Your task to perform on an android device: What is the recent news? Image 0: 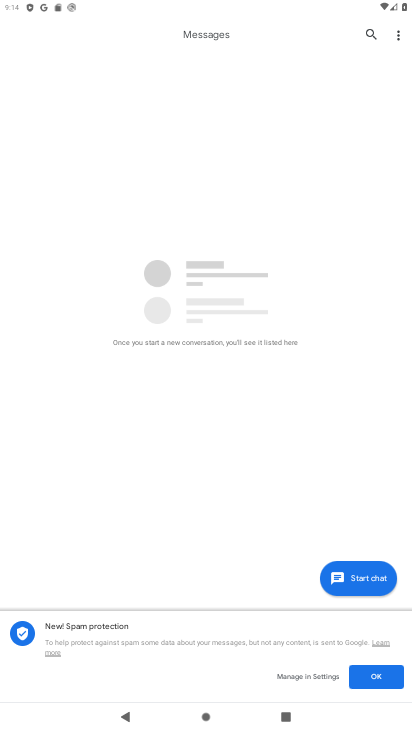
Step 0: press home button
Your task to perform on an android device: What is the recent news? Image 1: 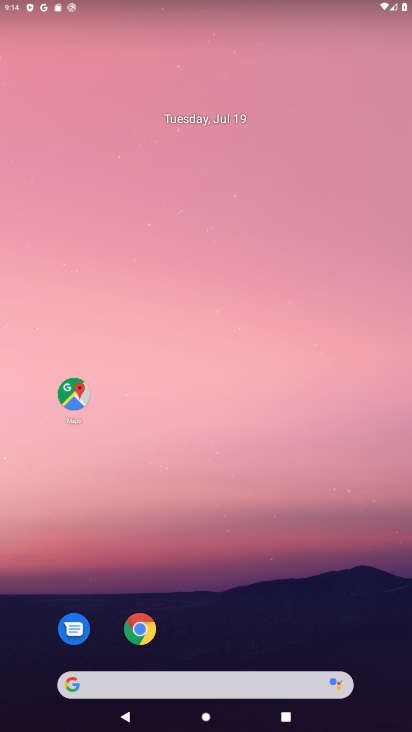
Step 1: click (179, 686)
Your task to perform on an android device: What is the recent news? Image 2: 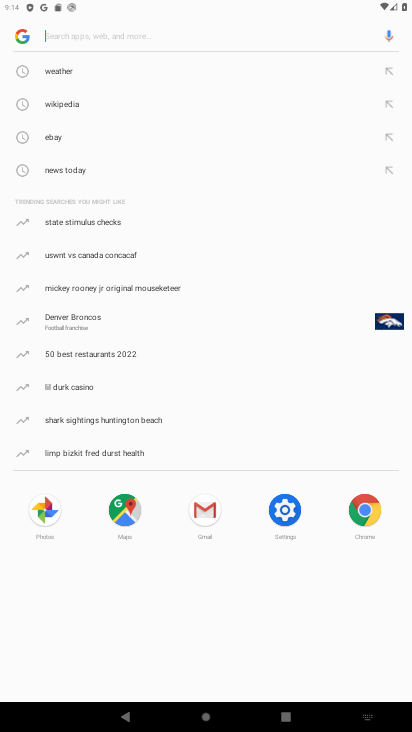
Step 2: type "what is the recent news"
Your task to perform on an android device: What is the recent news? Image 3: 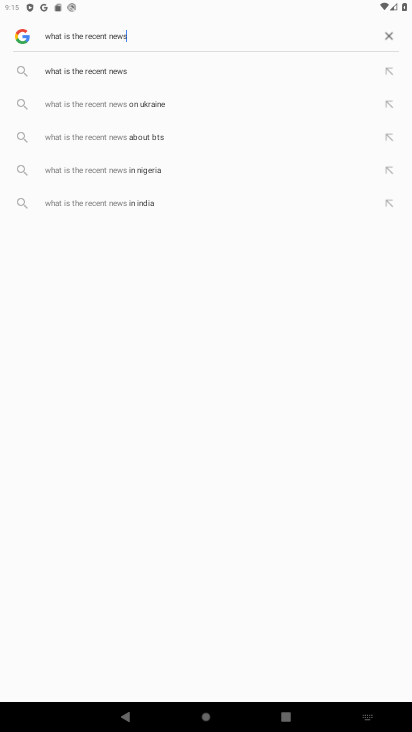
Step 3: click (82, 70)
Your task to perform on an android device: What is the recent news? Image 4: 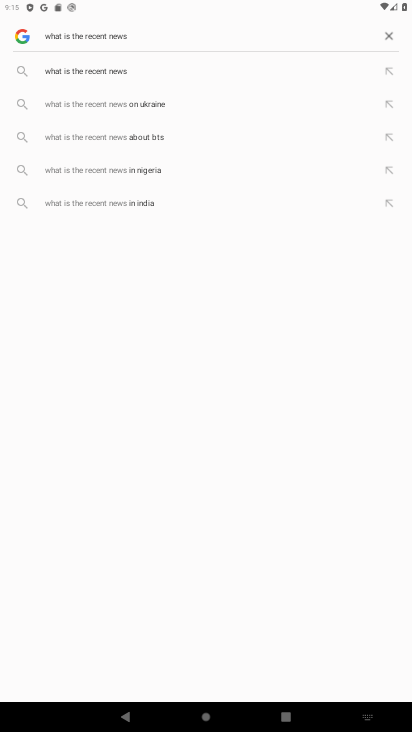
Step 4: click (82, 70)
Your task to perform on an android device: What is the recent news? Image 5: 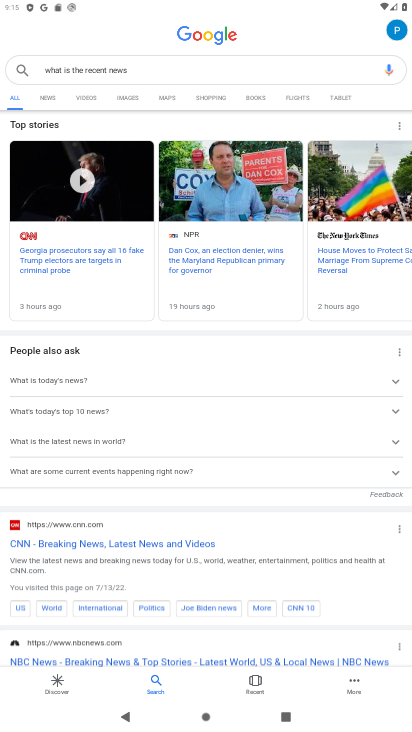
Step 5: click (57, 90)
Your task to perform on an android device: What is the recent news? Image 6: 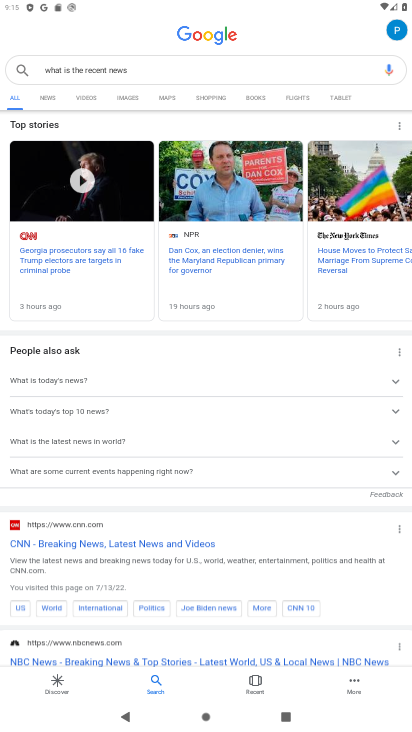
Step 6: click (51, 103)
Your task to perform on an android device: What is the recent news? Image 7: 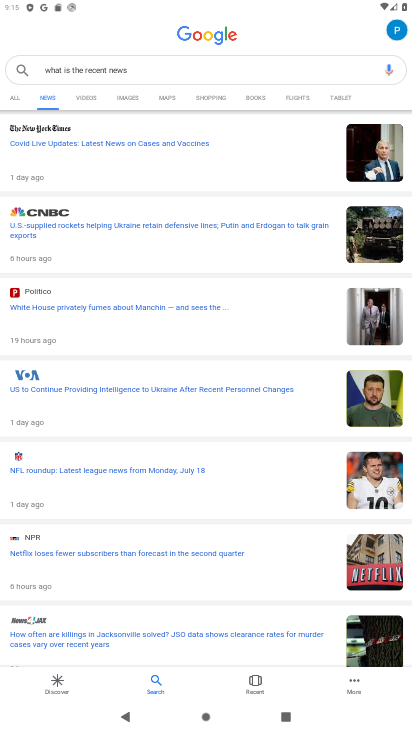
Step 7: task complete